Your task to perform on an android device: Open the stopwatch Image 0: 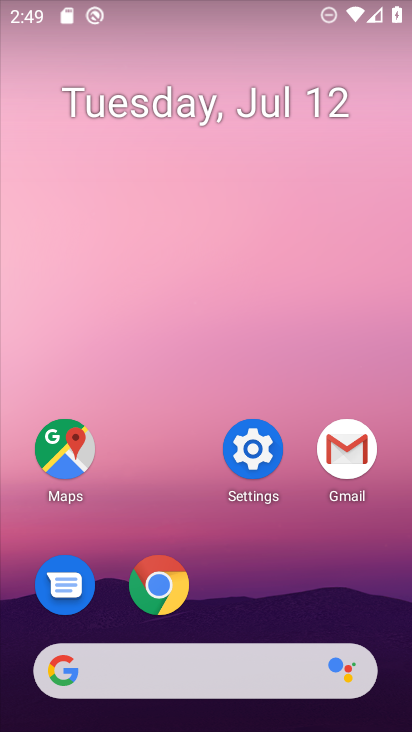
Step 0: click (247, 463)
Your task to perform on an android device: Open the stopwatch Image 1: 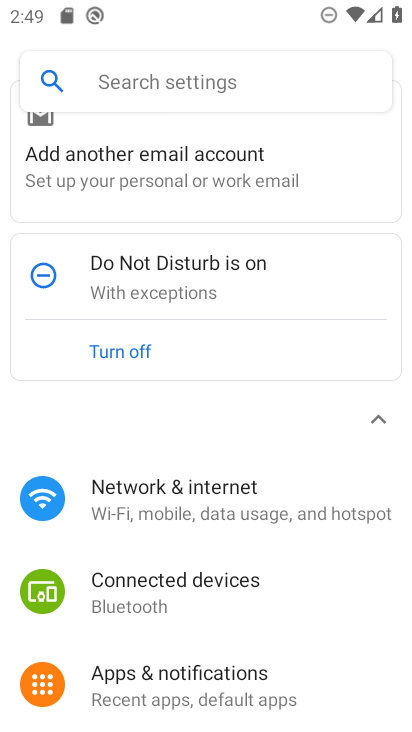
Step 1: press home button
Your task to perform on an android device: Open the stopwatch Image 2: 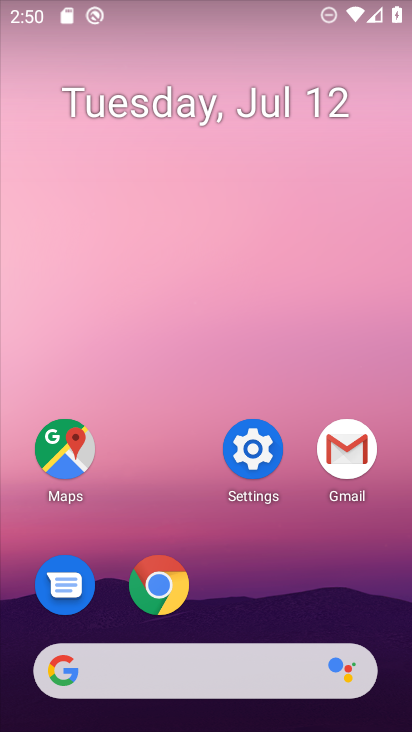
Step 2: drag from (393, 679) to (342, 95)
Your task to perform on an android device: Open the stopwatch Image 3: 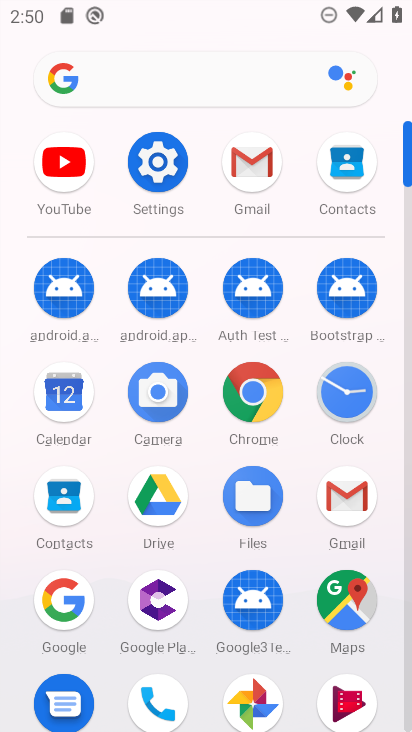
Step 3: click (350, 407)
Your task to perform on an android device: Open the stopwatch Image 4: 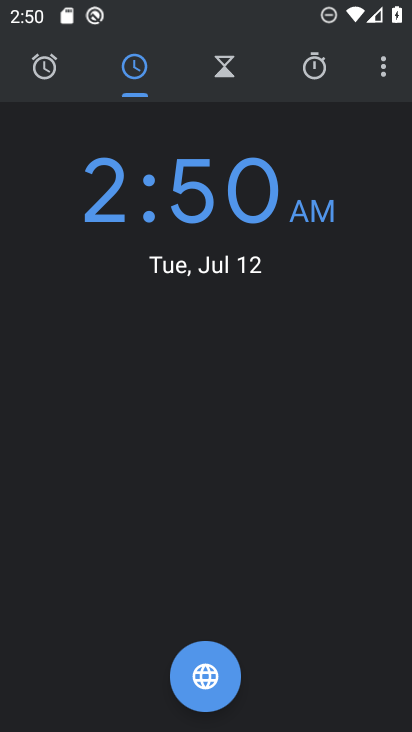
Step 4: click (308, 73)
Your task to perform on an android device: Open the stopwatch Image 5: 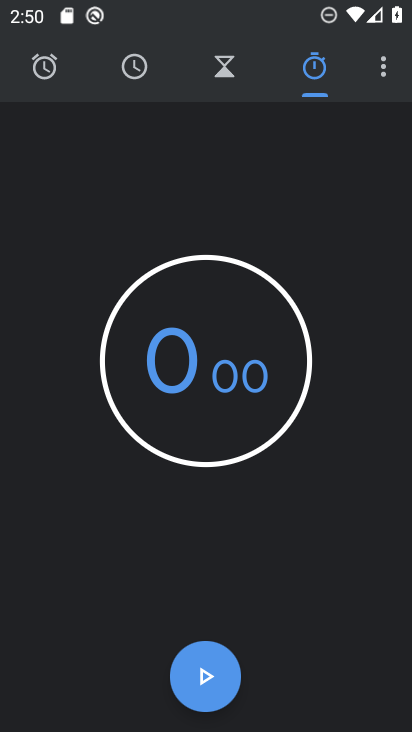
Step 5: click (201, 680)
Your task to perform on an android device: Open the stopwatch Image 6: 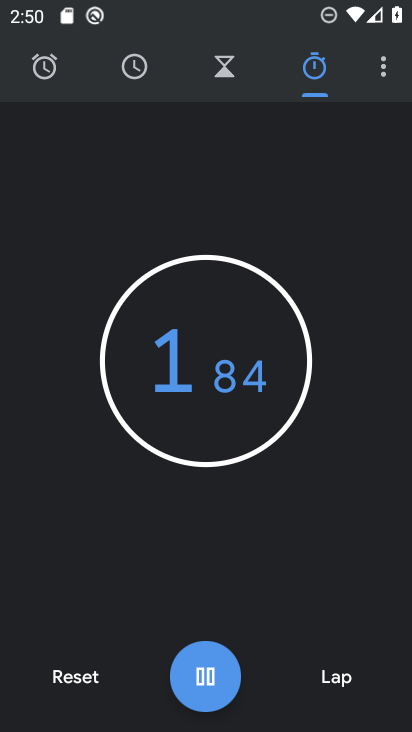
Step 6: task complete